Your task to perform on an android device: Search for panasonic triple a on walmart.com, select the first entry, and add it to the cart. Image 0: 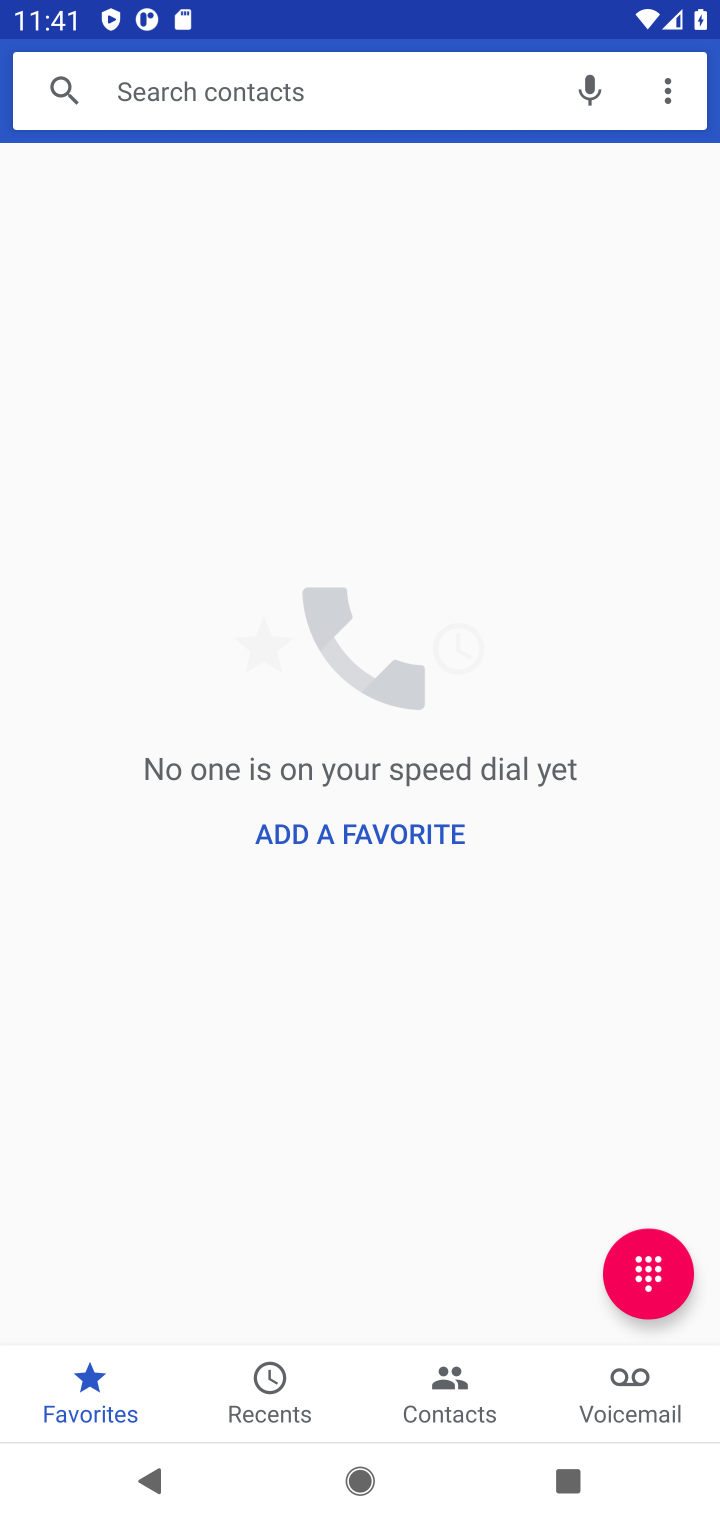
Step 0: press home button
Your task to perform on an android device: Search for panasonic triple a on walmart.com, select the first entry, and add it to the cart. Image 1: 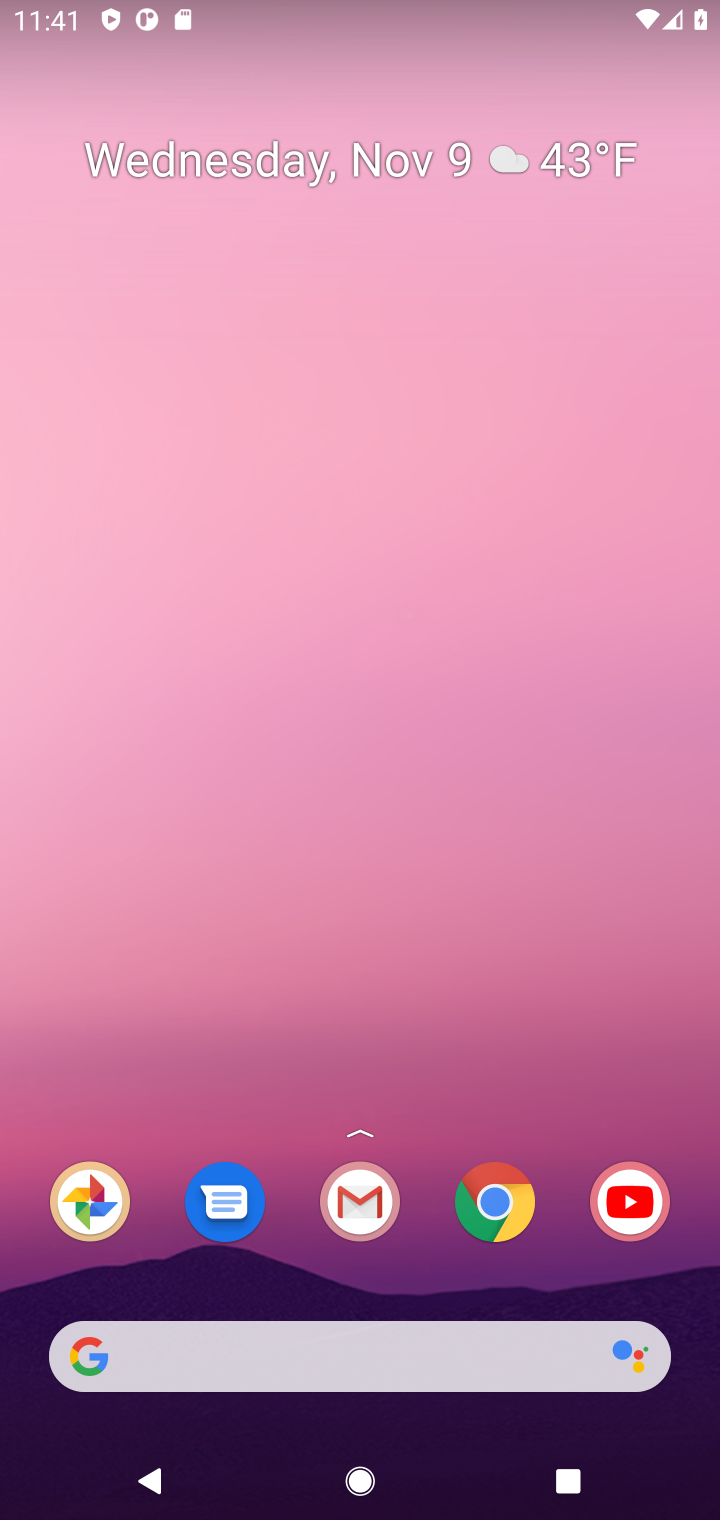
Step 1: click (490, 1200)
Your task to perform on an android device: Search for panasonic triple a on walmart.com, select the first entry, and add it to the cart. Image 2: 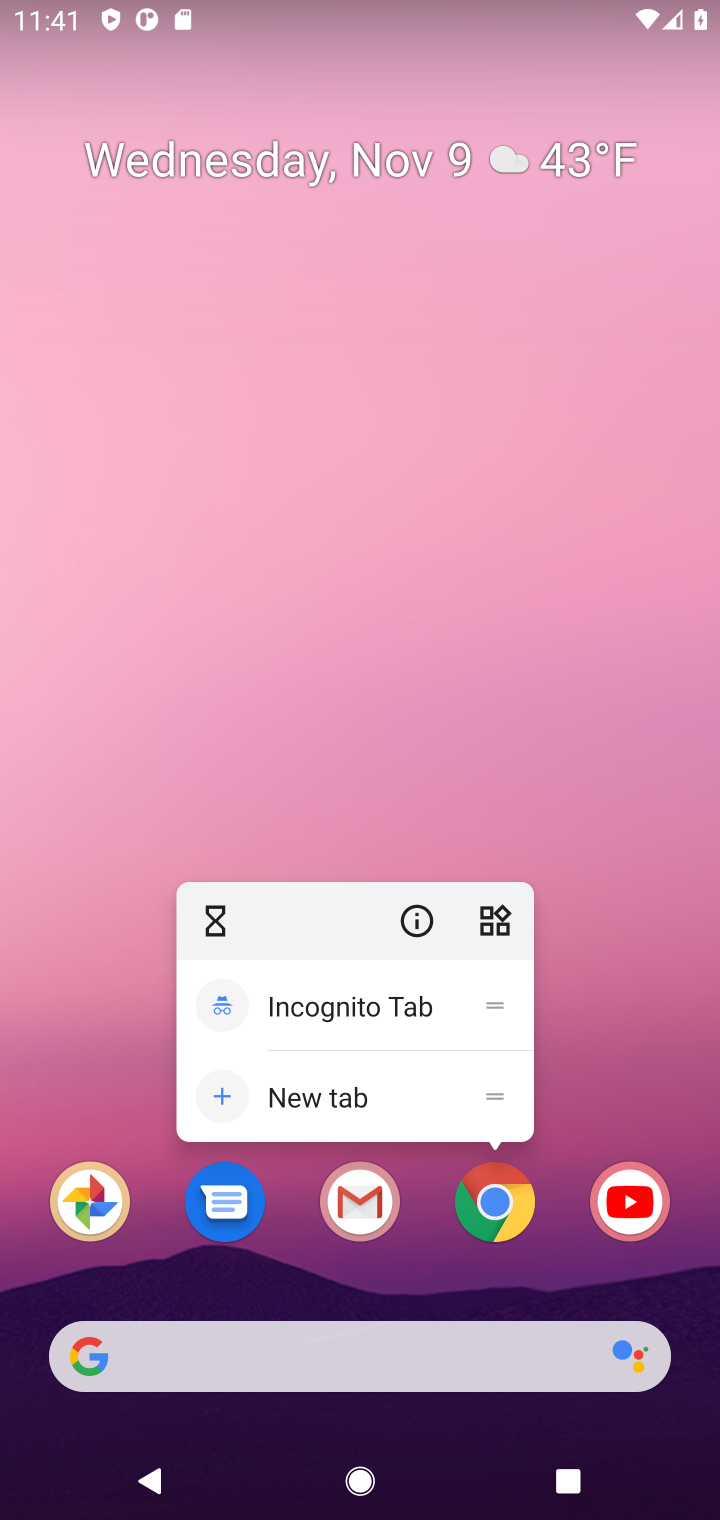
Step 2: click (490, 1200)
Your task to perform on an android device: Search for panasonic triple a on walmart.com, select the first entry, and add it to the cart. Image 3: 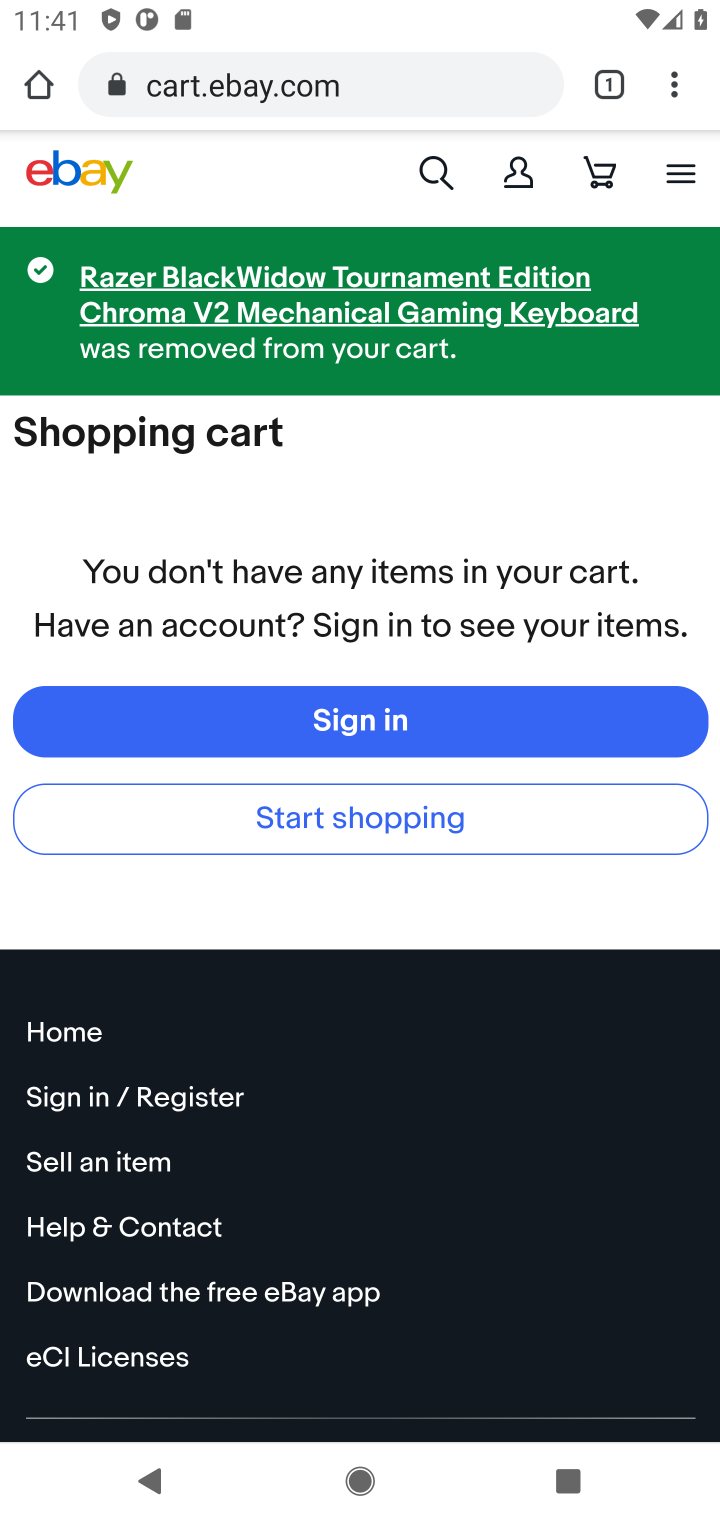
Step 3: click (417, 94)
Your task to perform on an android device: Search for panasonic triple a on walmart.com, select the first entry, and add it to the cart. Image 4: 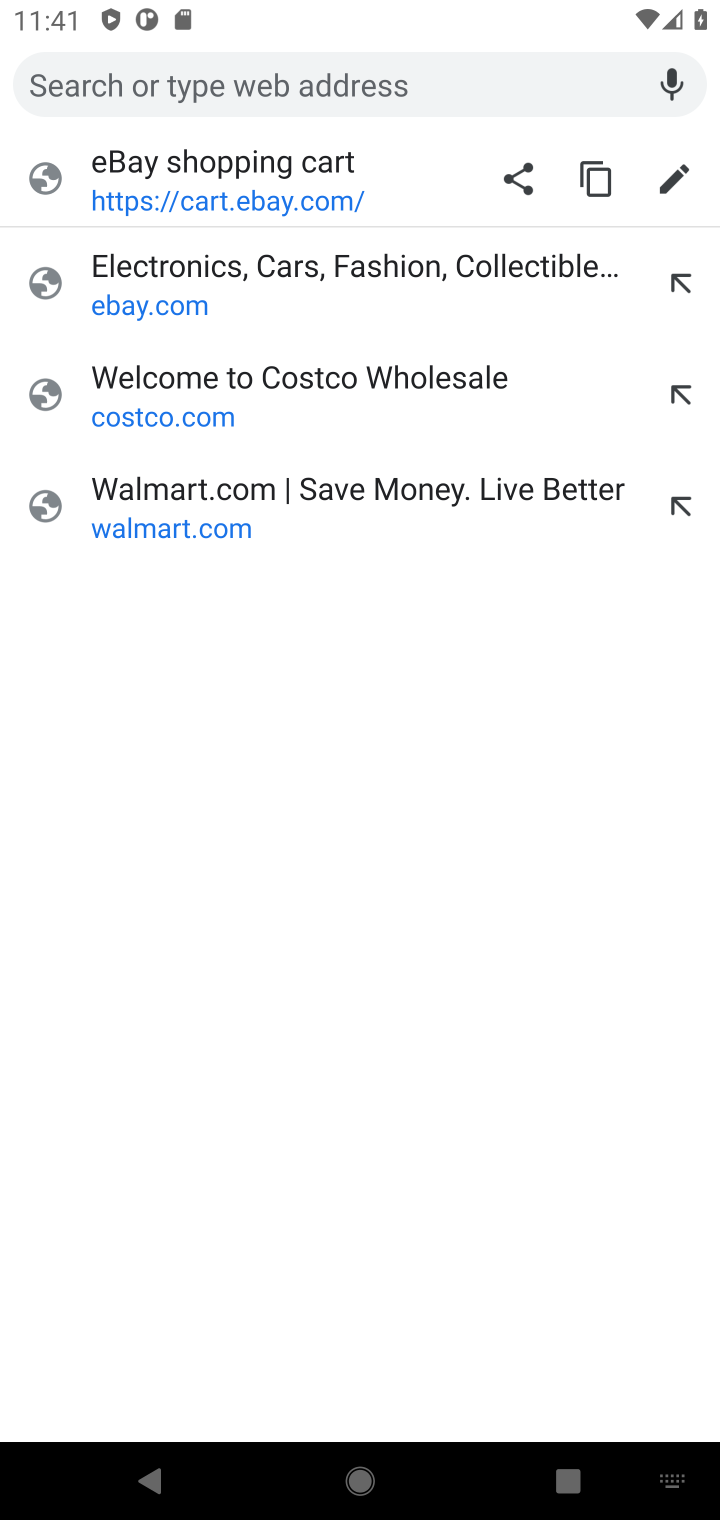
Step 4: press enter
Your task to perform on an android device: Search for panasonic triple a on walmart.com, select the first entry, and add it to the cart. Image 5: 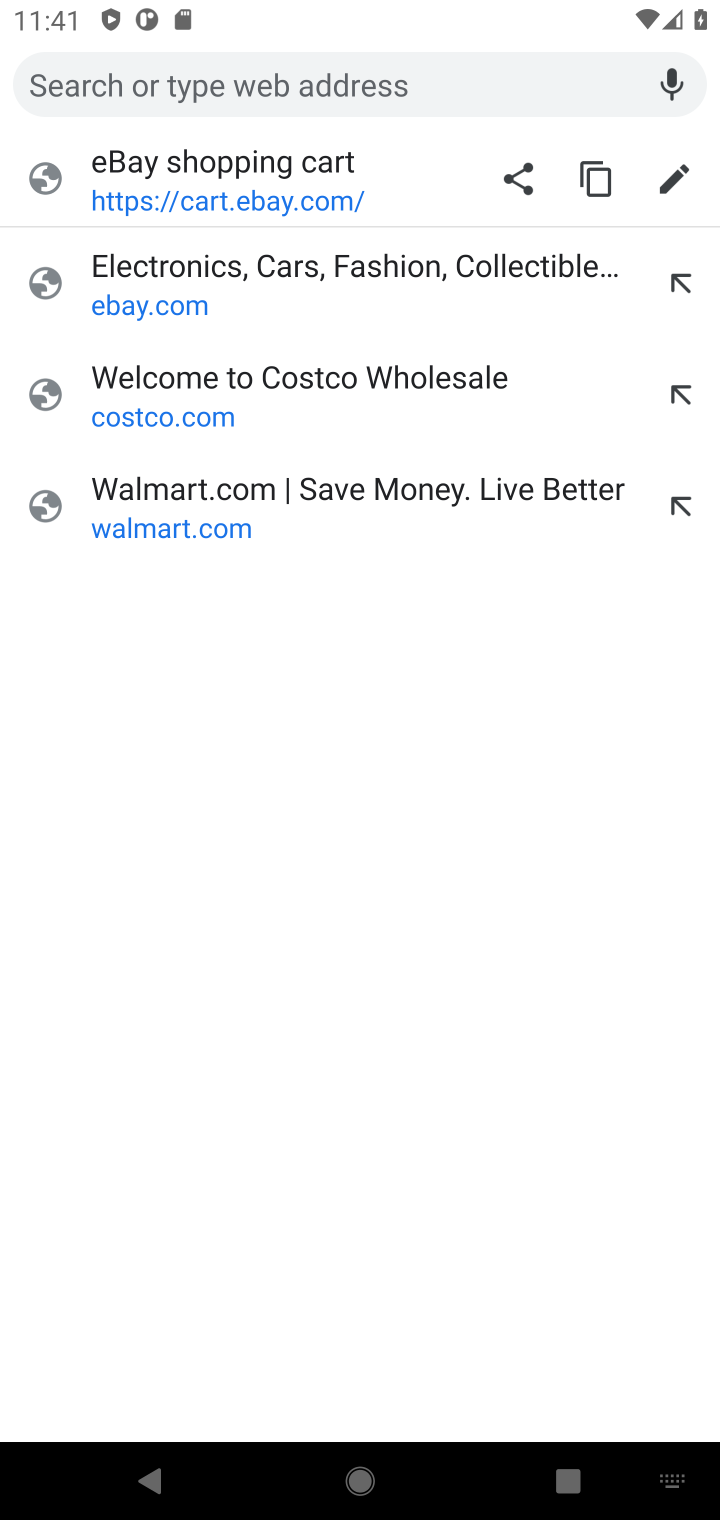
Step 5: type "walmart.com"
Your task to perform on an android device: Search for panasonic triple a on walmart.com, select the first entry, and add it to the cart. Image 6: 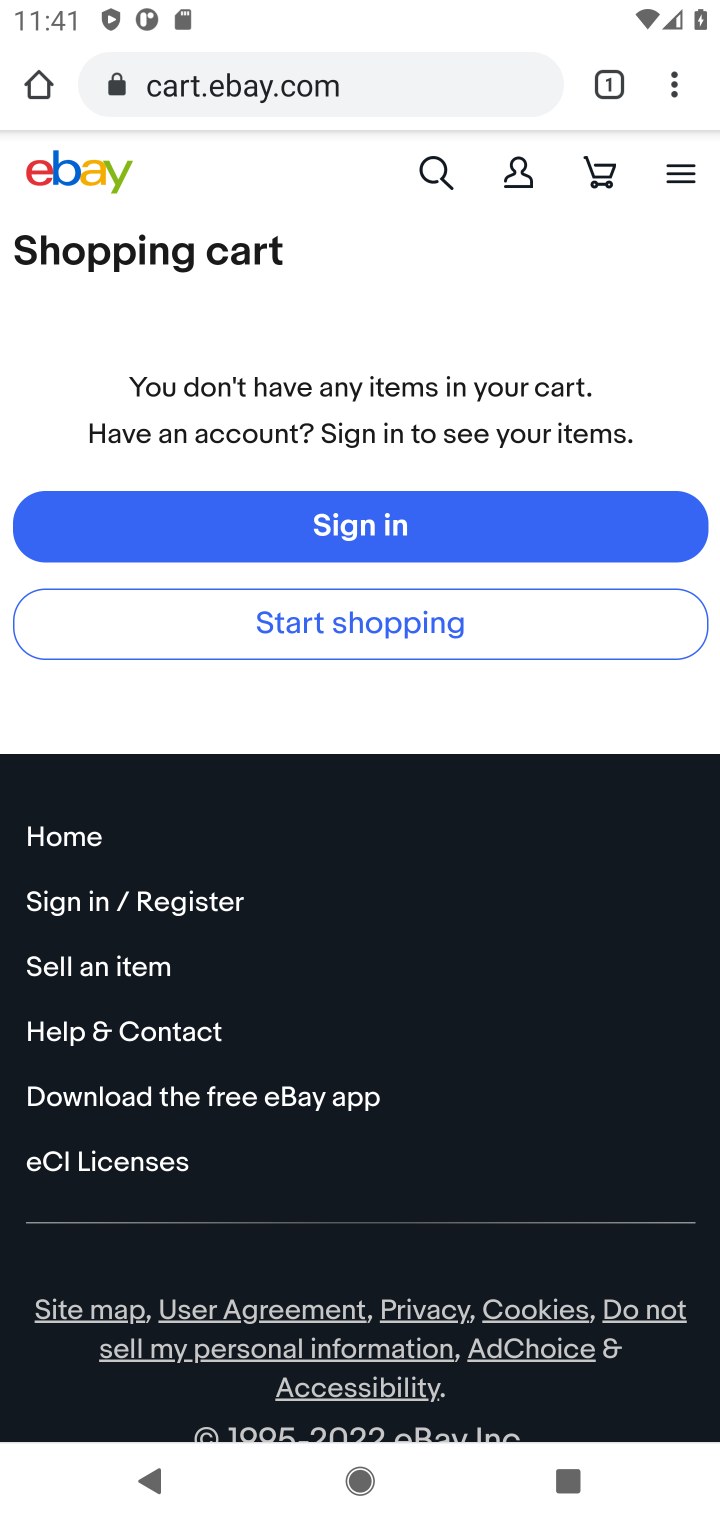
Step 6: click (35, 89)
Your task to perform on an android device: Search for panasonic triple a on walmart.com, select the first entry, and add it to the cart. Image 7: 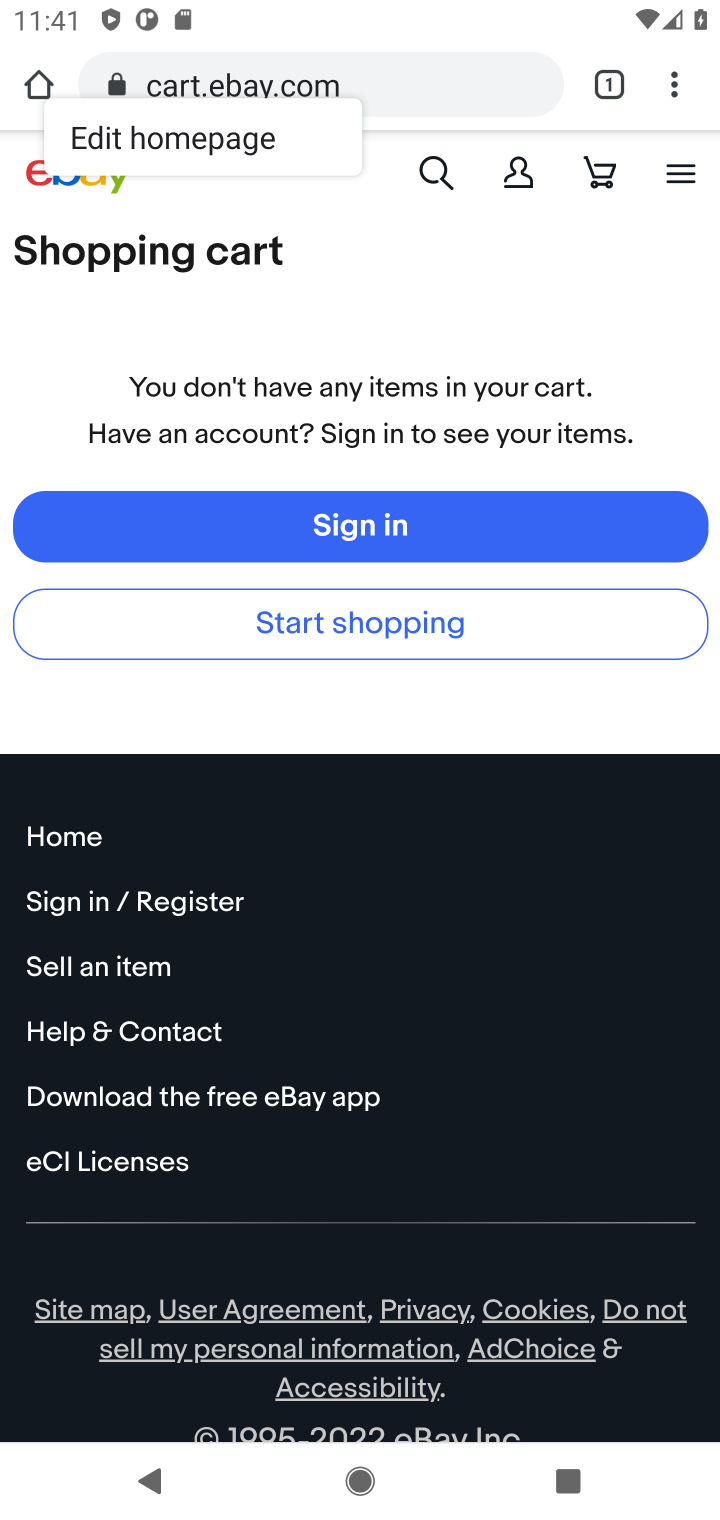
Step 7: click (38, 85)
Your task to perform on an android device: Search for panasonic triple a on walmart.com, select the first entry, and add it to the cart. Image 8: 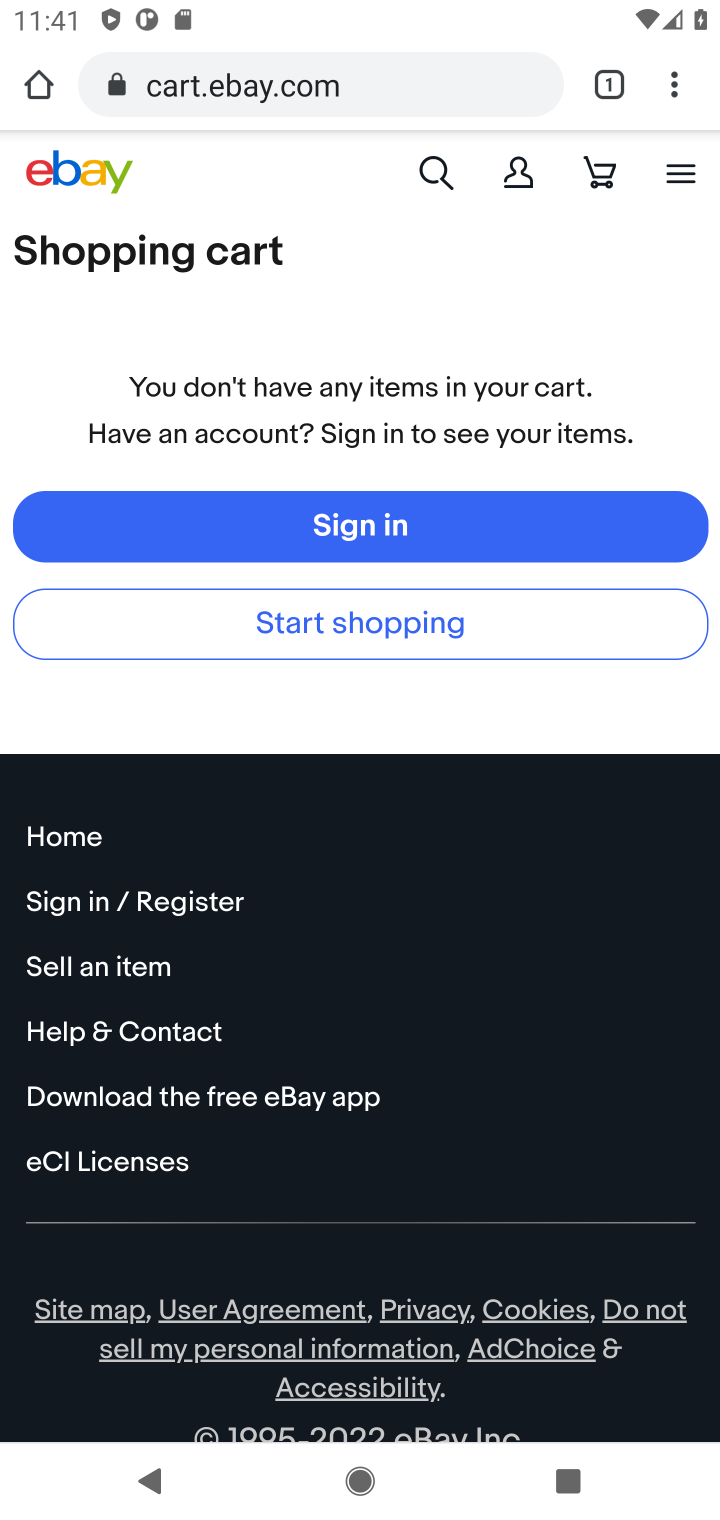
Step 8: click (533, 98)
Your task to perform on an android device: Search for panasonic triple a on walmart.com, select the first entry, and add it to the cart. Image 9: 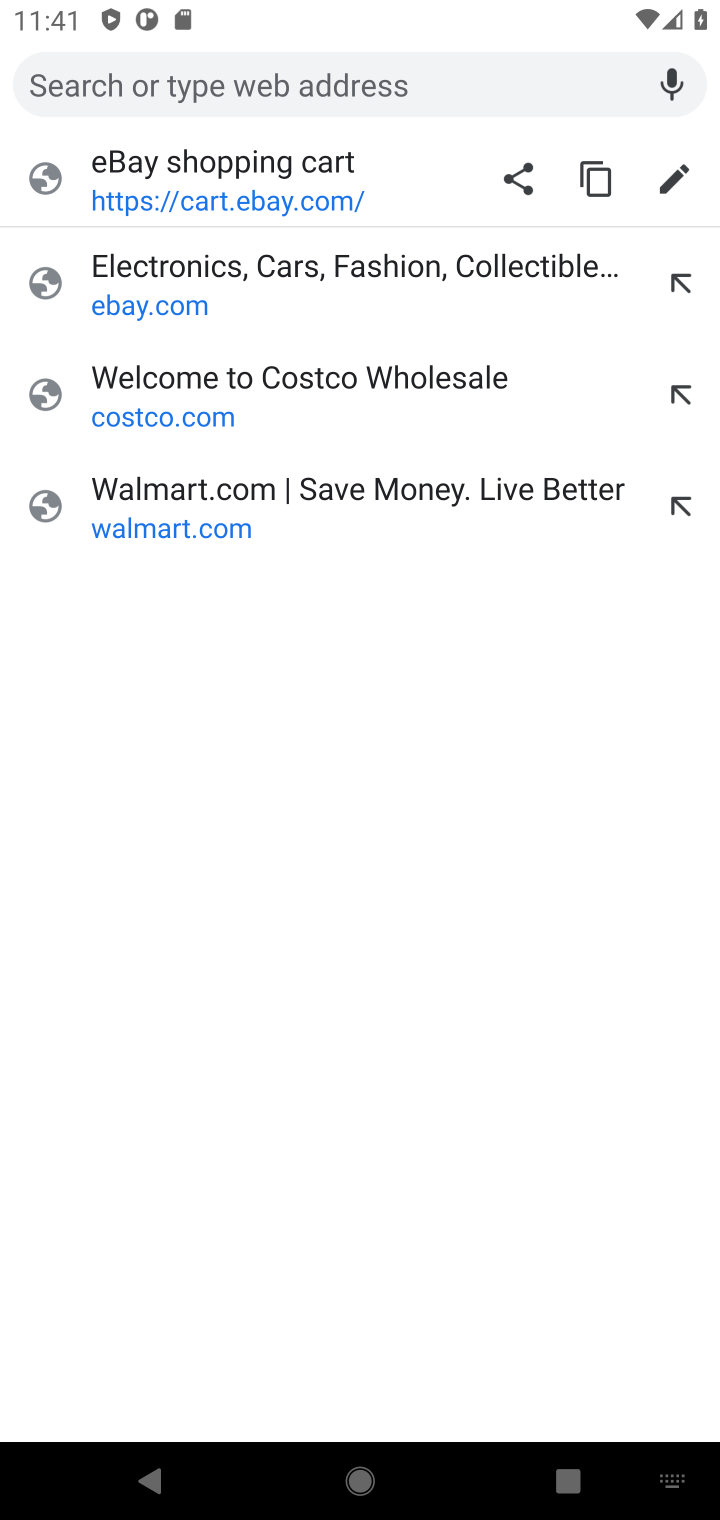
Step 9: type "walmart.com"
Your task to perform on an android device: Search for panasonic triple a on walmart.com, select the first entry, and add it to the cart. Image 10: 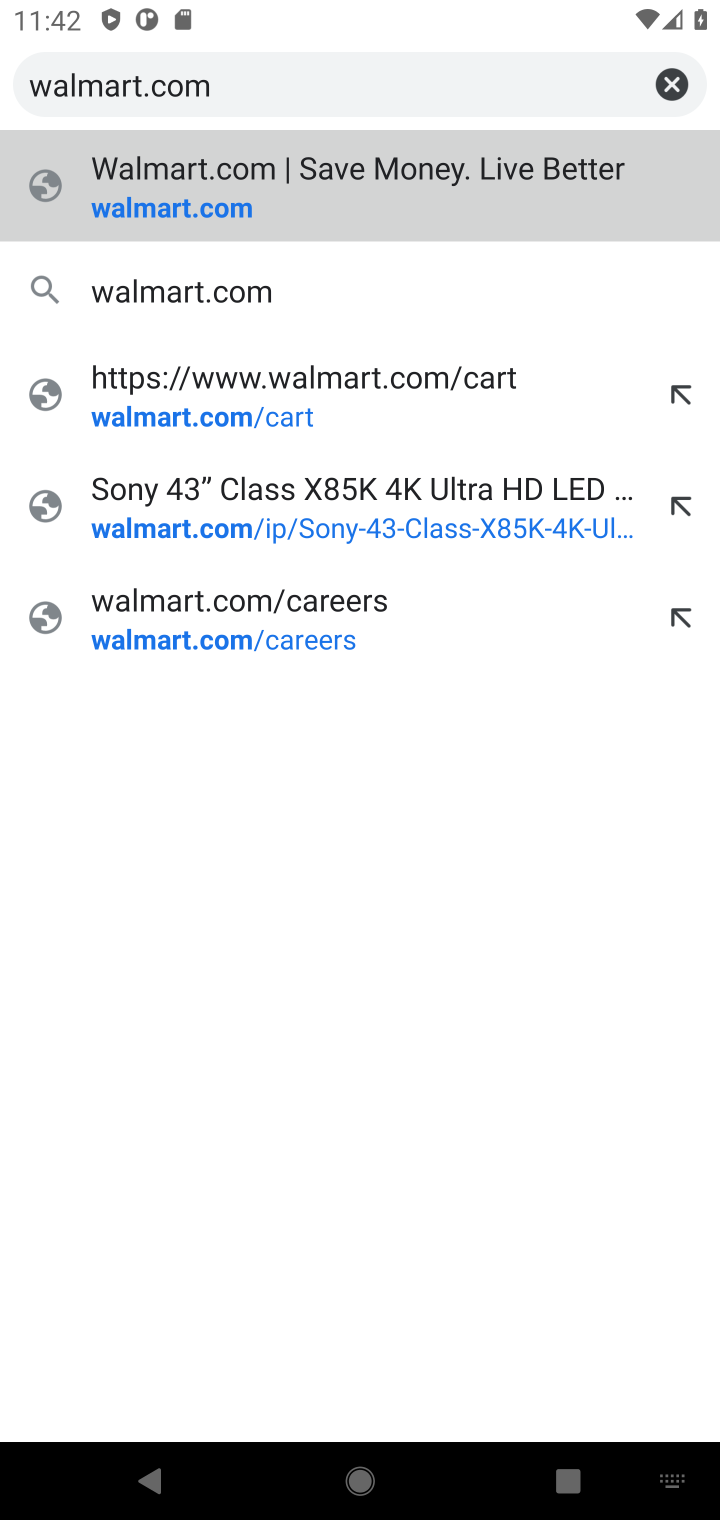
Step 10: press enter
Your task to perform on an android device: Search for panasonic triple a on walmart.com, select the first entry, and add it to the cart. Image 11: 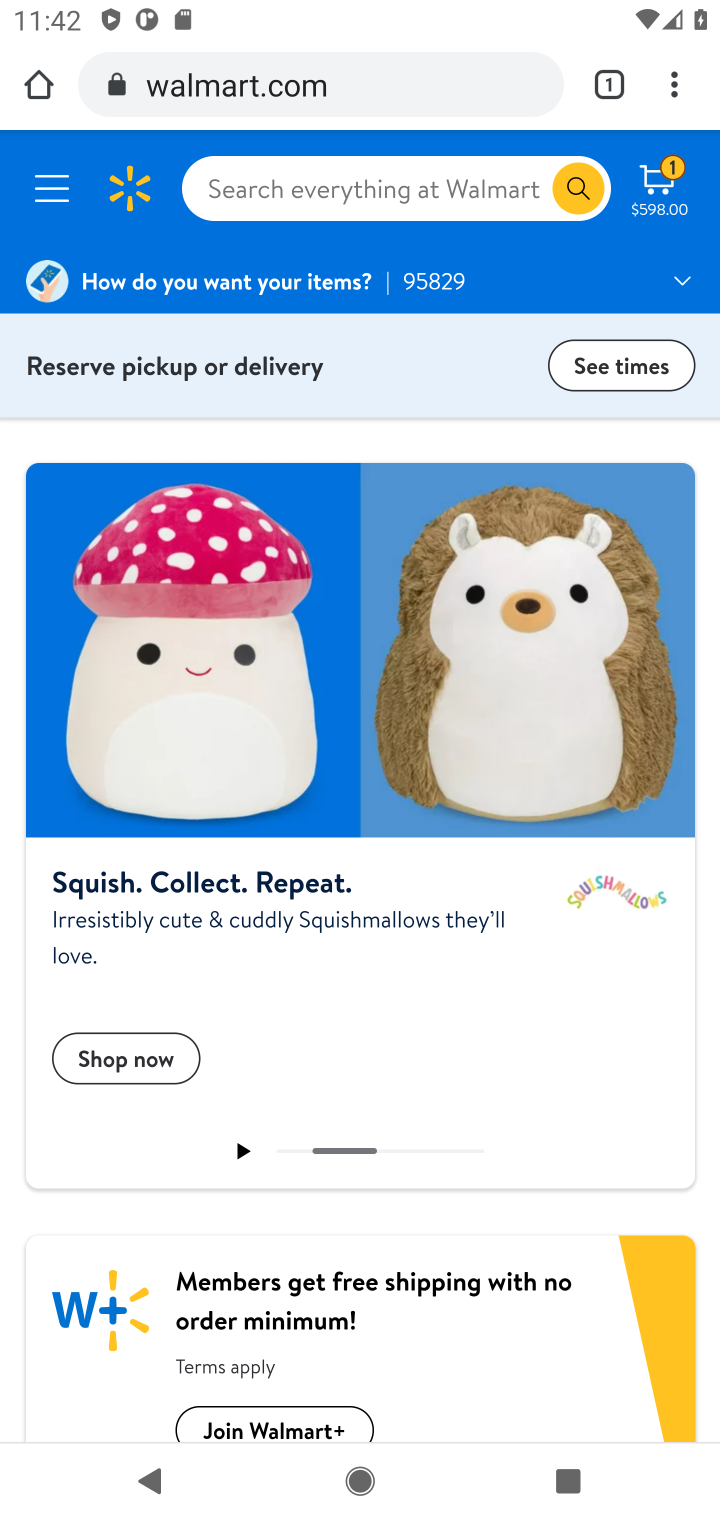
Step 11: click (323, 191)
Your task to perform on an android device: Search for panasonic triple a on walmart.com, select the first entry, and add it to the cart. Image 12: 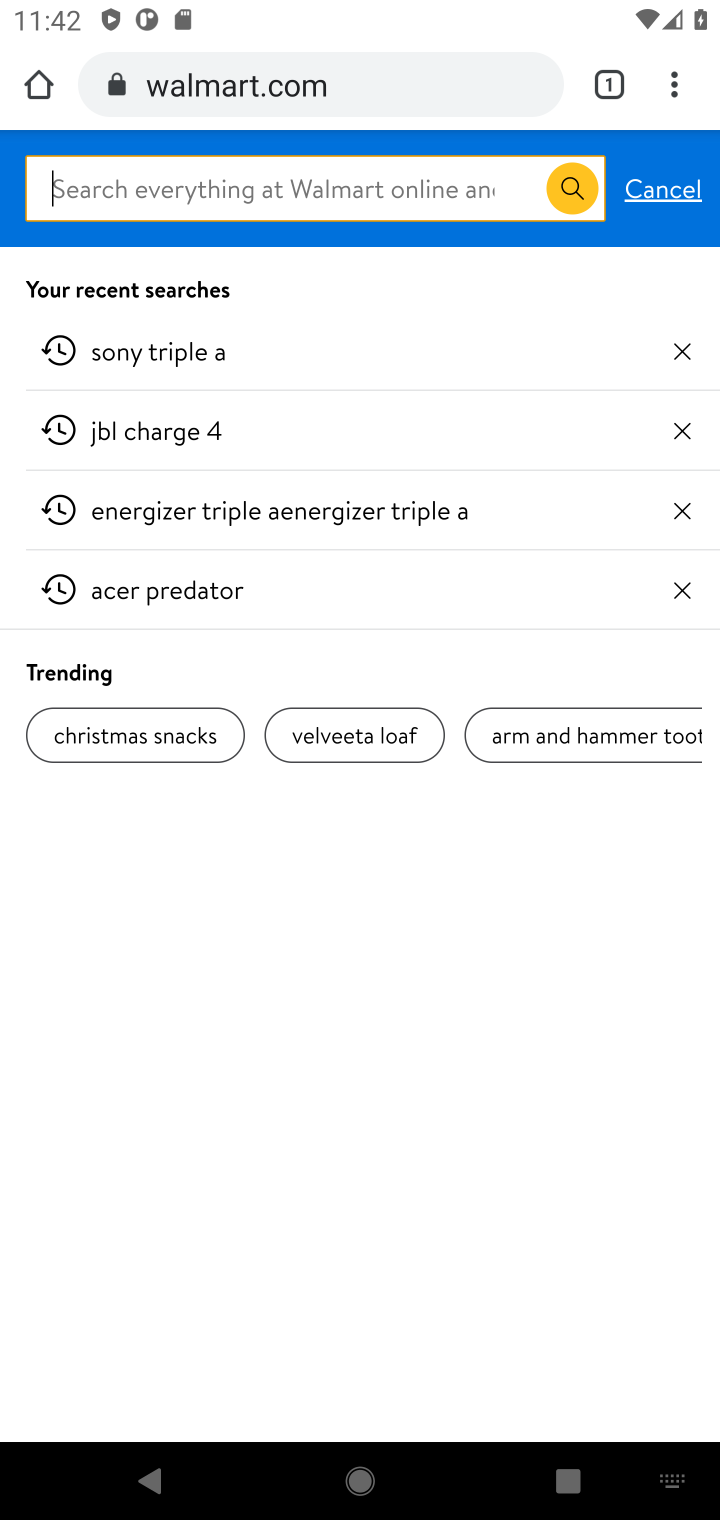
Step 12: type "panasonic triple a"
Your task to perform on an android device: Search for panasonic triple a on walmart.com, select the first entry, and add it to the cart. Image 13: 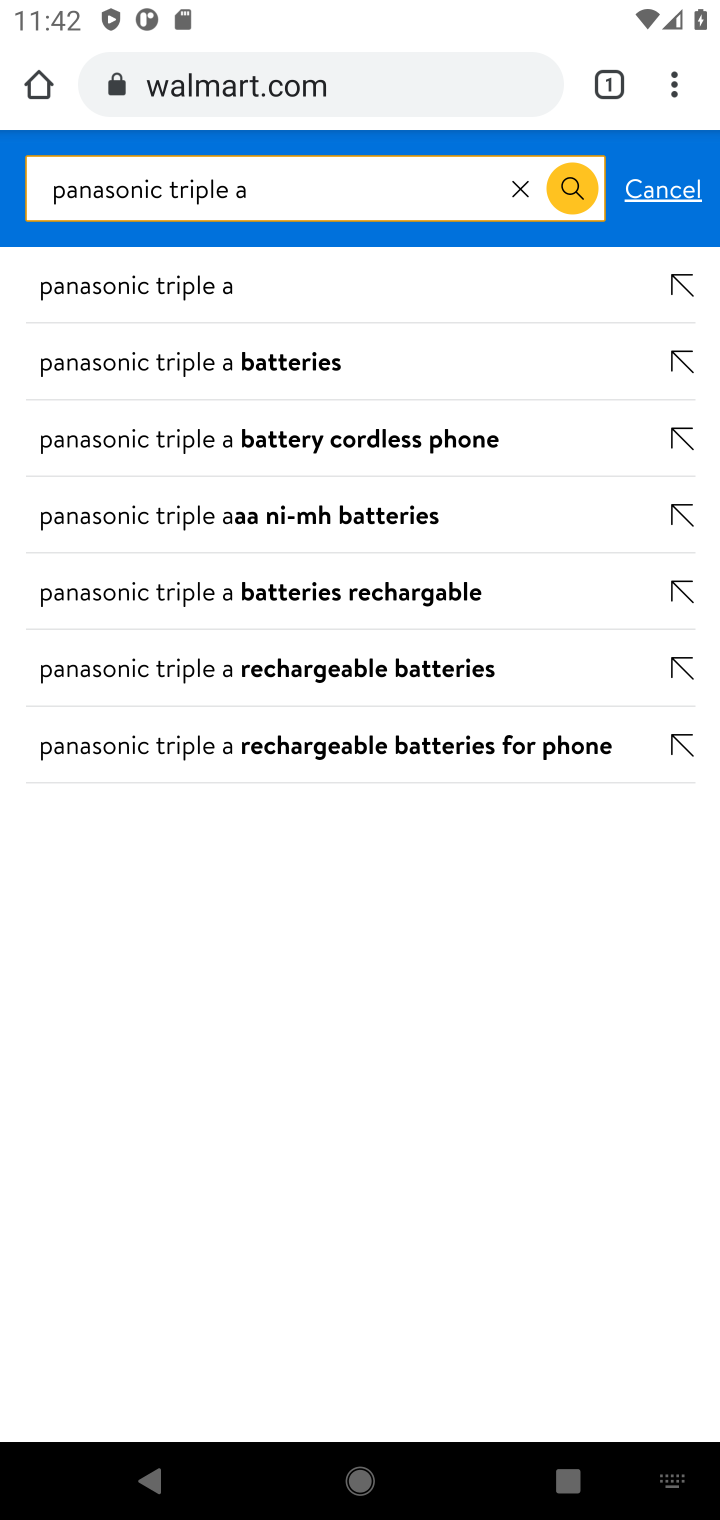
Step 13: press enter
Your task to perform on an android device: Search for panasonic triple a on walmart.com, select the first entry, and add it to the cart. Image 14: 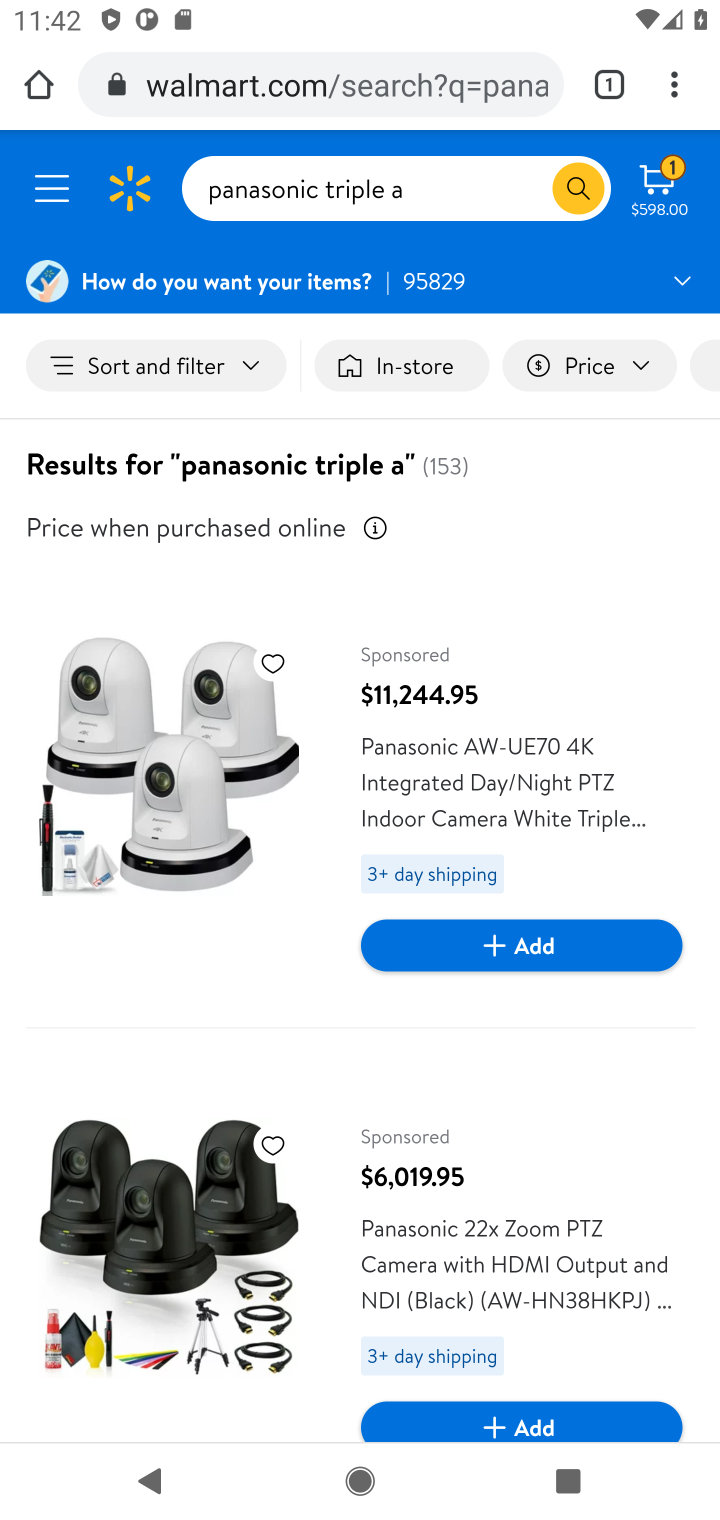
Step 14: drag from (616, 1146) to (600, 604)
Your task to perform on an android device: Search for panasonic triple a on walmart.com, select the first entry, and add it to the cart. Image 15: 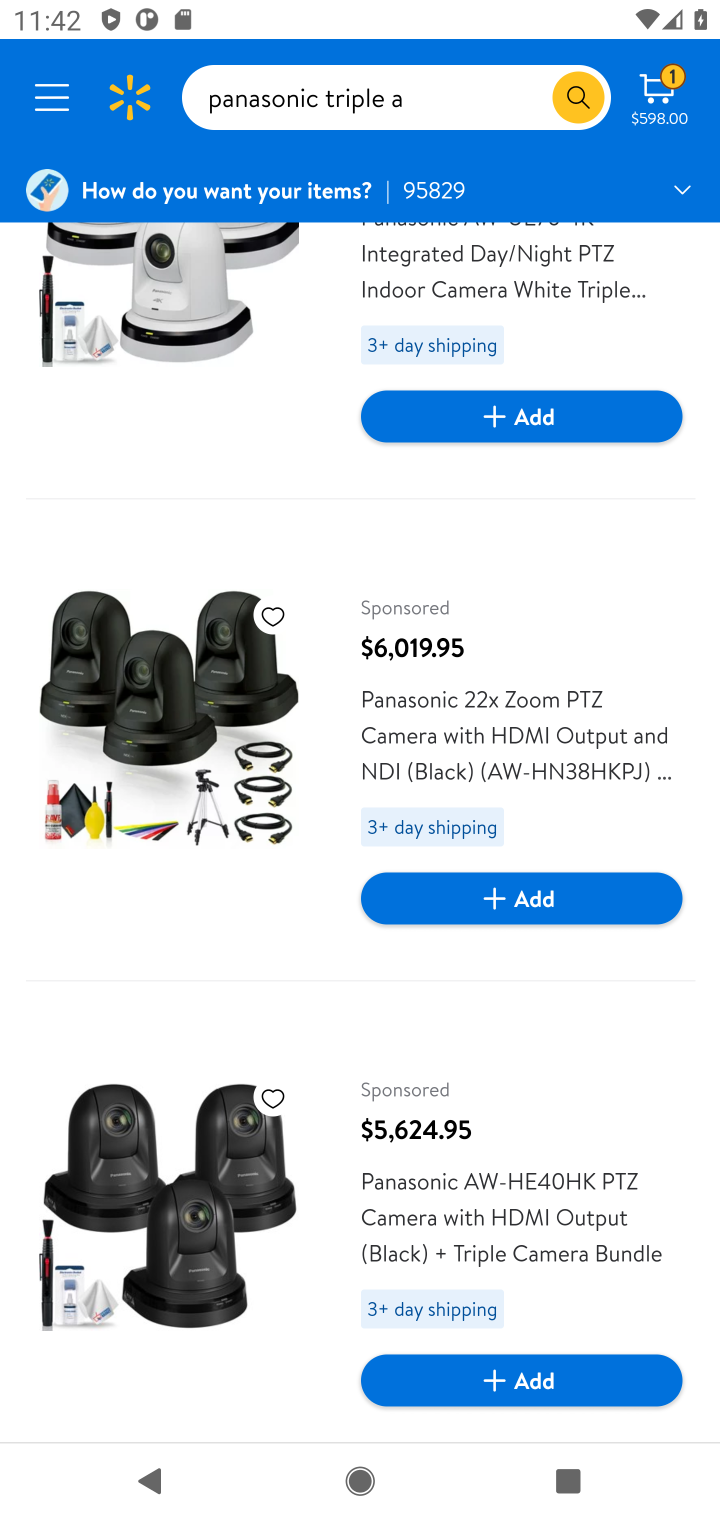
Step 15: drag from (621, 1240) to (604, 606)
Your task to perform on an android device: Search for panasonic triple a on walmart.com, select the first entry, and add it to the cart. Image 16: 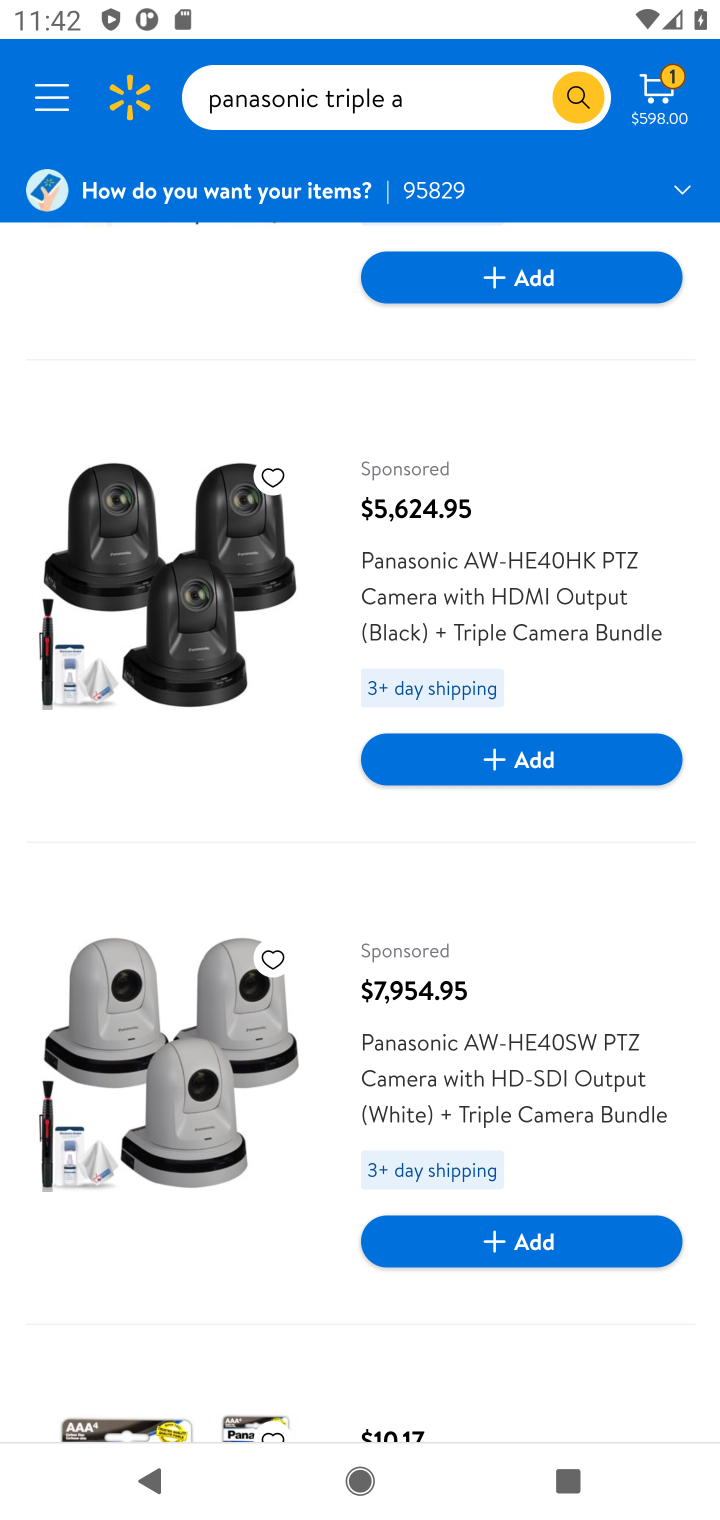
Step 16: drag from (601, 897) to (627, 502)
Your task to perform on an android device: Search for panasonic triple a on walmart.com, select the first entry, and add it to the cart. Image 17: 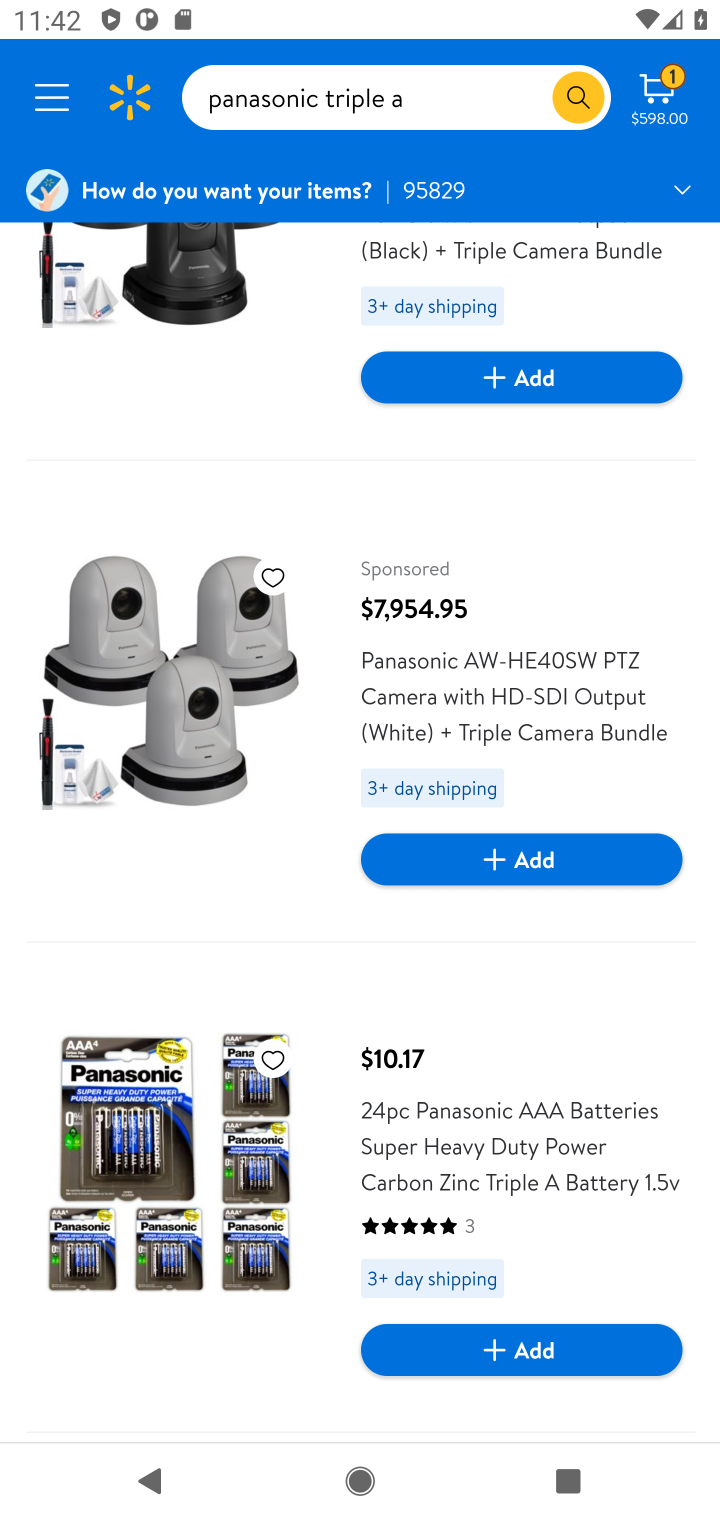
Step 17: click (165, 1187)
Your task to perform on an android device: Search for panasonic triple a on walmart.com, select the first entry, and add it to the cart. Image 18: 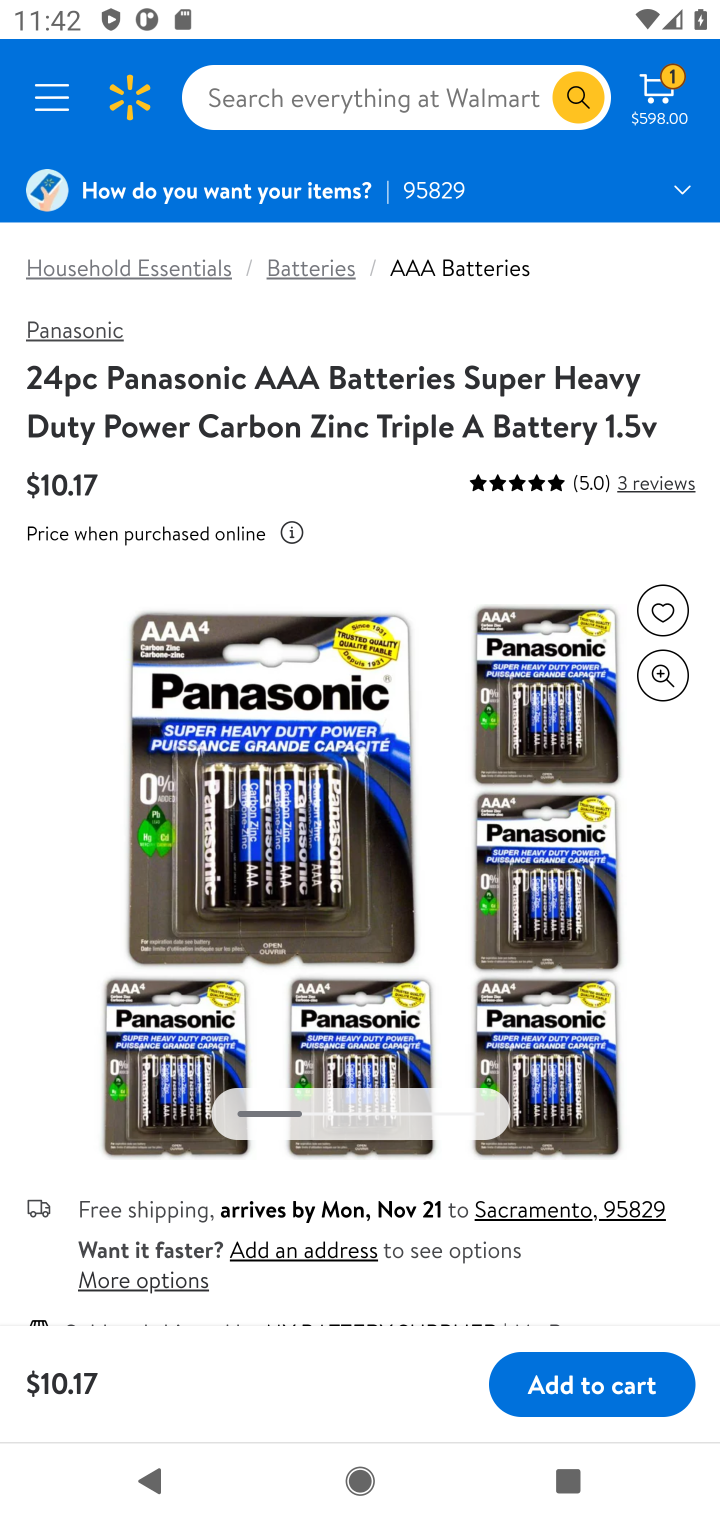
Step 18: click (618, 1389)
Your task to perform on an android device: Search for panasonic triple a on walmart.com, select the first entry, and add it to the cart. Image 19: 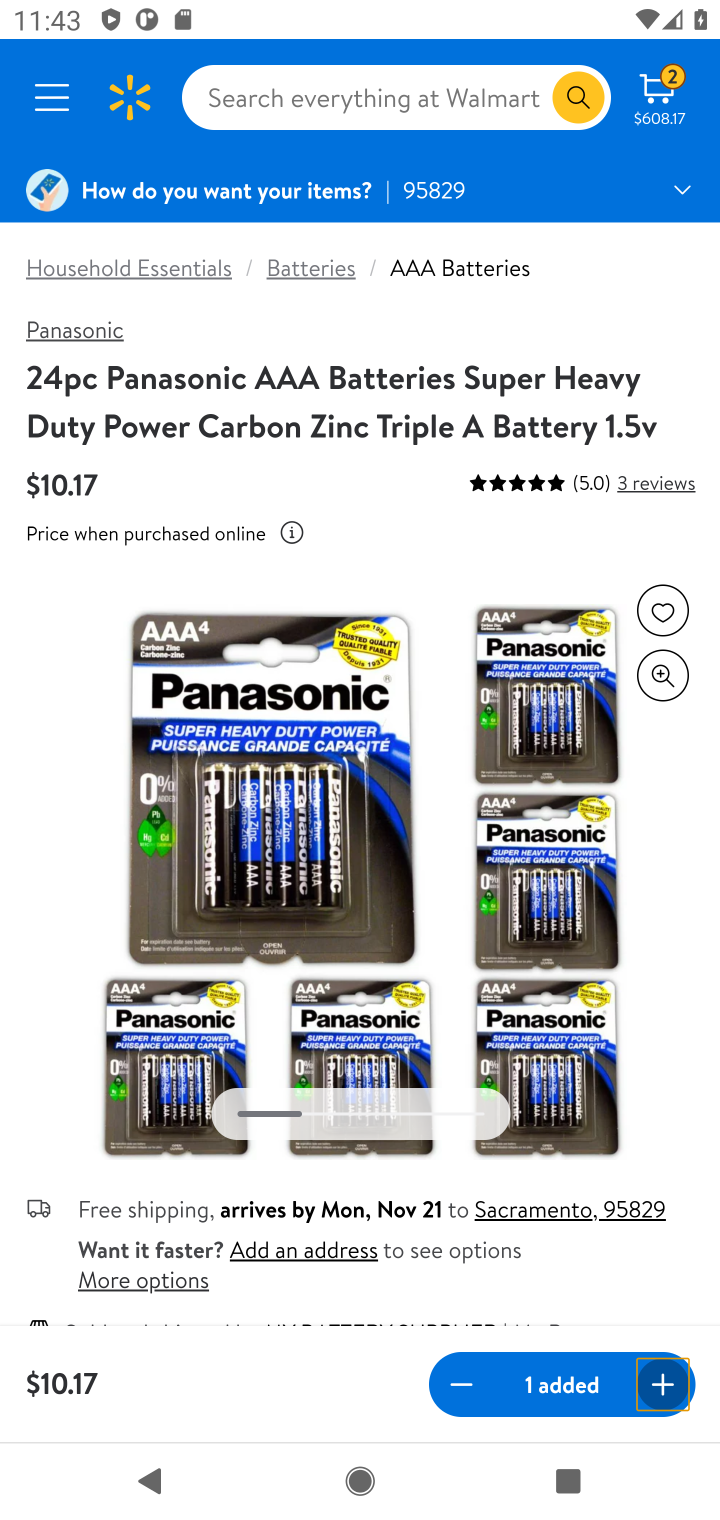
Step 19: task complete